Your task to perform on an android device: star an email in the gmail app Image 0: 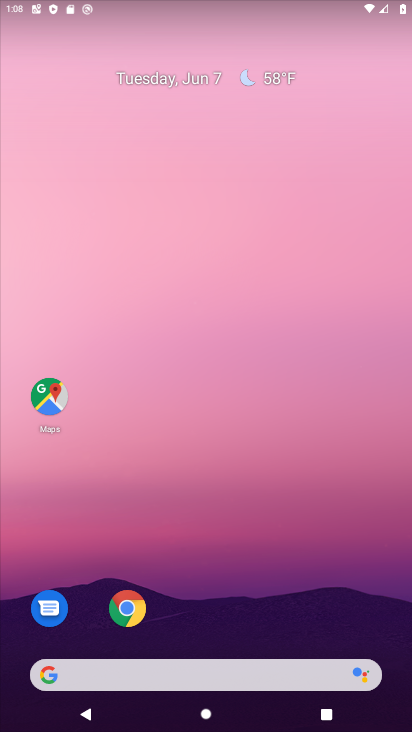
Step 0: drag from (277, 597) to (229, 179)
Your task to perform on an android device: star an email in the gmail app Image 1: 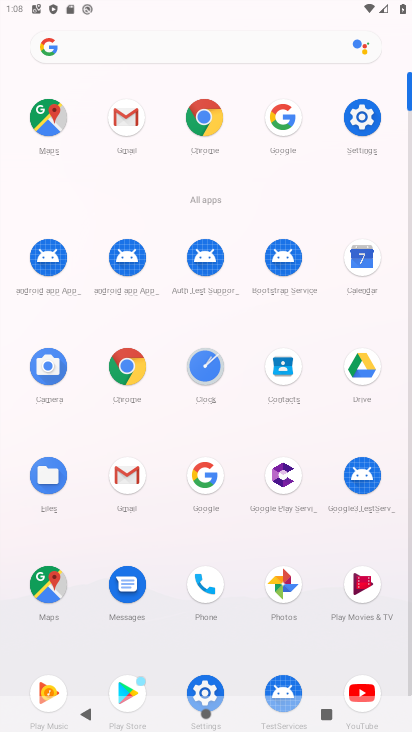
Step 1: click (118, 119)
Your task to perform on an android device: star an email in the gmail app Image 2: 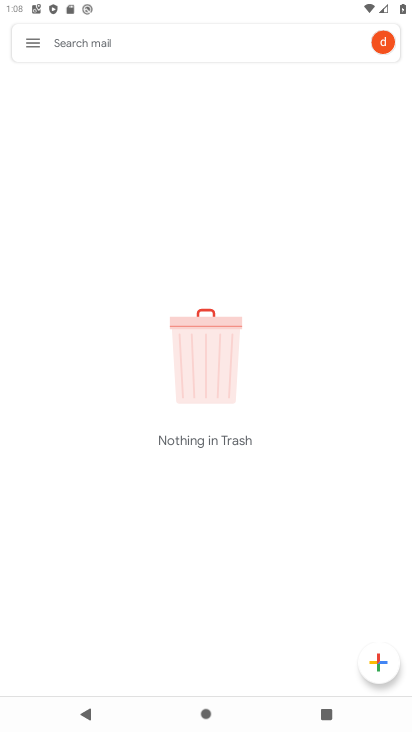
Step 2: click (29, 60)
Your task to perform on an android device: star an email in the gmail app Image 3: 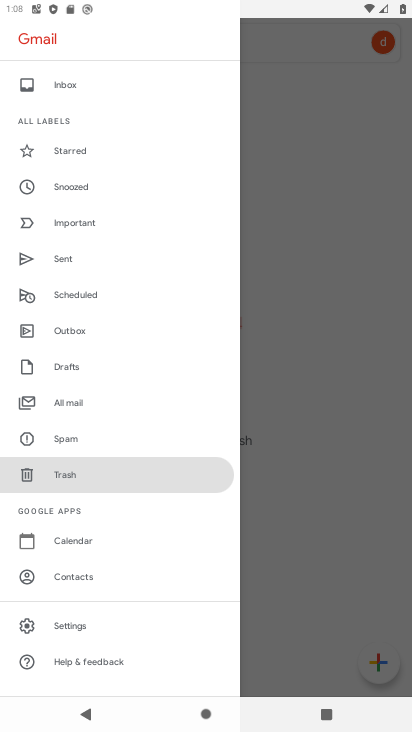
Step 3: click (78, 403)
Your task to perform on an android device: star an email in the gmail app Image 4: 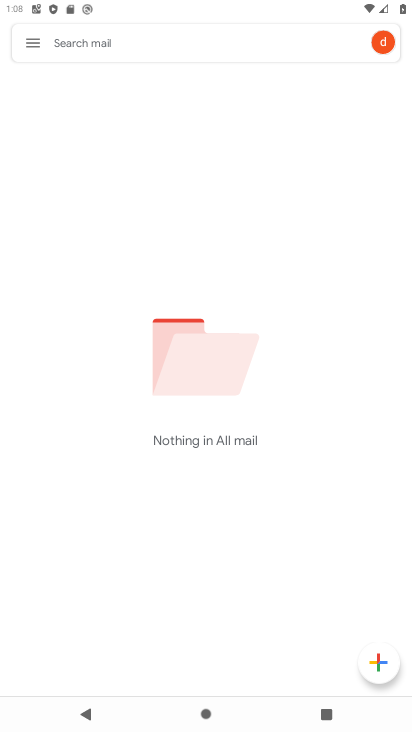
Step 4: task complete